Your task to perform on an android device: Open the phone app and click the voicemail tab. Image 0: 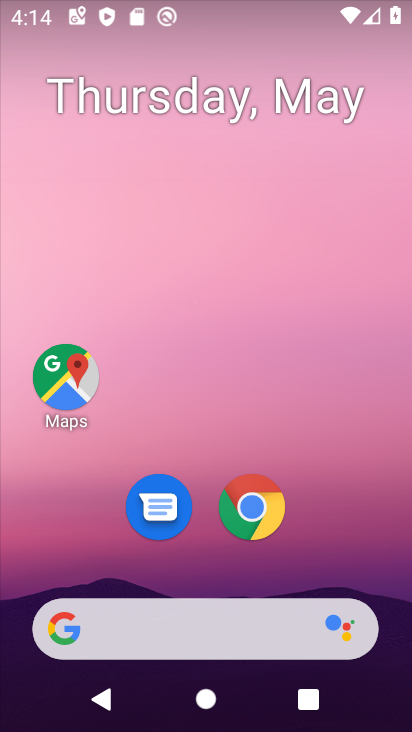
Step 0: drag from (250, 570) to (293, 1)
Your task to perform on an android device: Open the phone app and click the voicemail tab. Image 1: 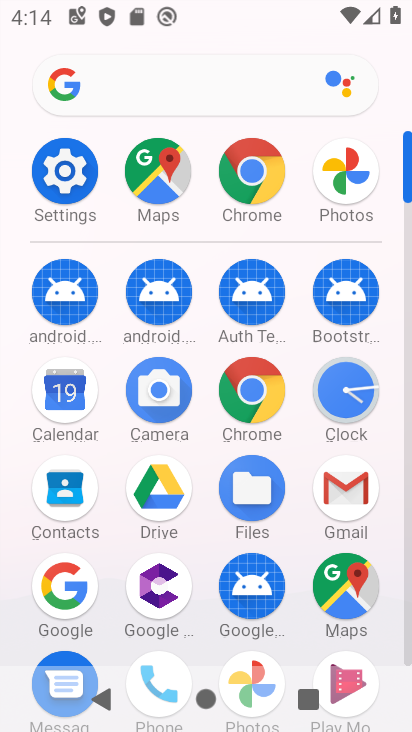
Step 1: drag from (209, 537) to (209, 290)
Your task to perform on an android device: Open the phone app and click the voicemail tab. Image 2: 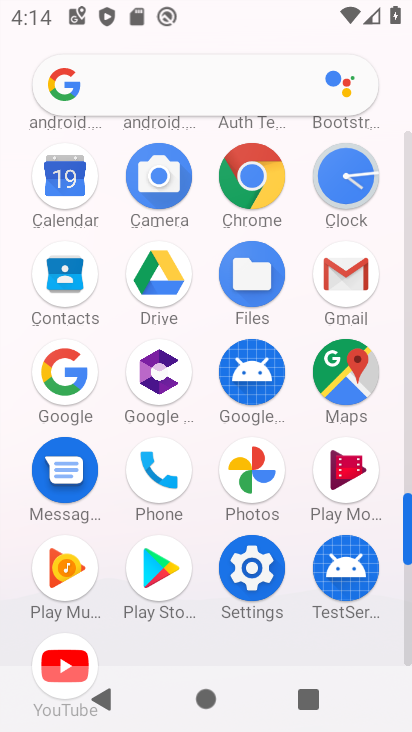
Step 2: click (148, 481)
Your task to perform on an android device: Open the phone app and click the voicemail tab. Image 3: 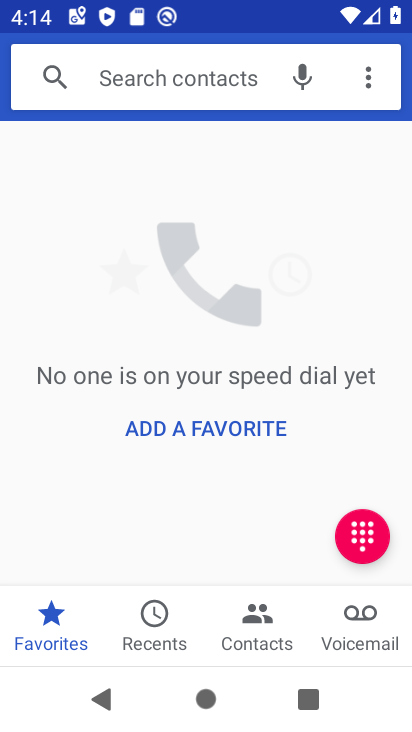
Step 3: click (374, 629)
Your task to perform on an android device: Open the phone app and click the voicemail tab. Image 4: 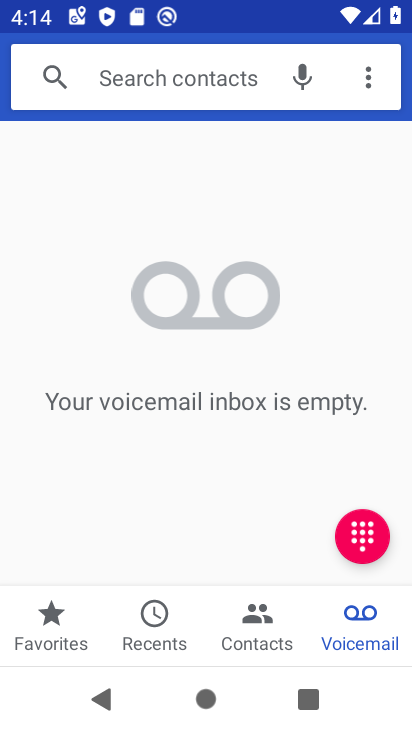
Step 4: task complete